Your task to perform on an android device: open app "Nova Launcher" (install if not already installed), go to login, and select forgot password Image 0: 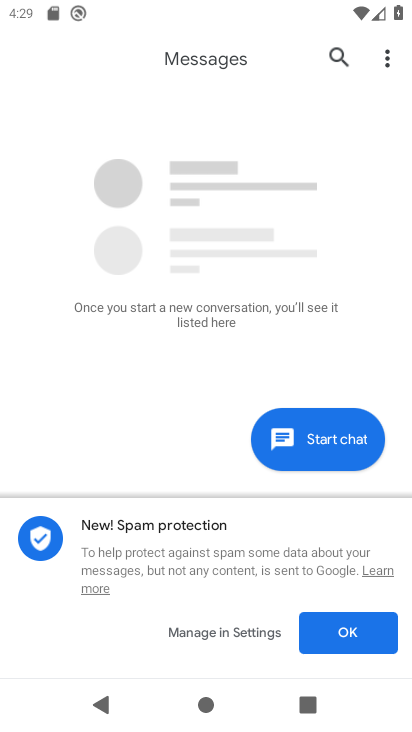
Step 0: press home button
Your task to perform on an android device: open app "Nova Launcher" (install if not already installed), go to login, and select forgot password Image 1: 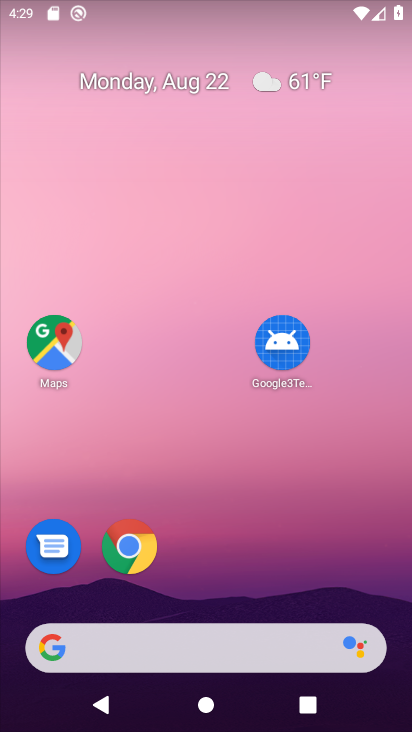
Step 1: drag from (393, 616) to (356, 155)
Your task to perform on an android device: open app "Nova Launcher" (install if not already installed), go to login, and select forgot password Image 2: 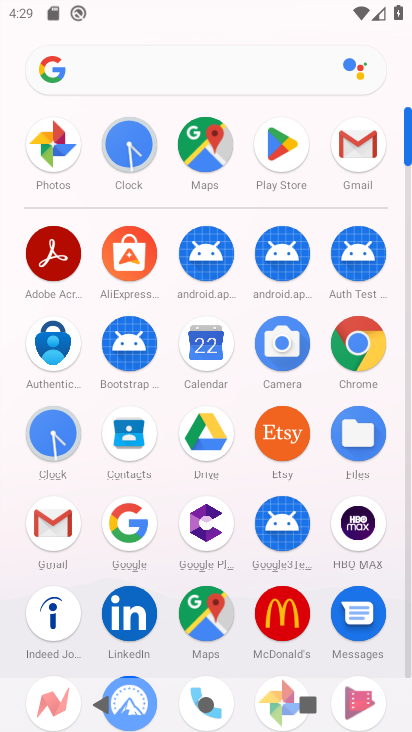
Step 2: click (409, 648)
Your task to perform on an android device: open app "Nova Launcher" (install if not already installed), go to login, and select forgot password Image 3: 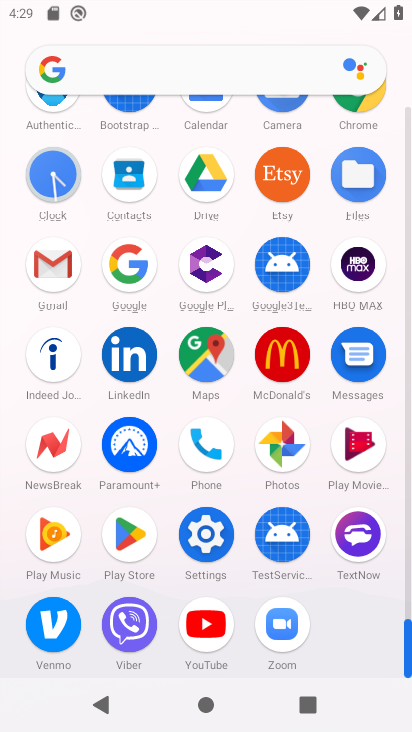
Step 3: click (129, 533)
Your task to perform on an android device: open app "Nova Launcher" (install if not already installed), go to login, and select forgot password Image 4: 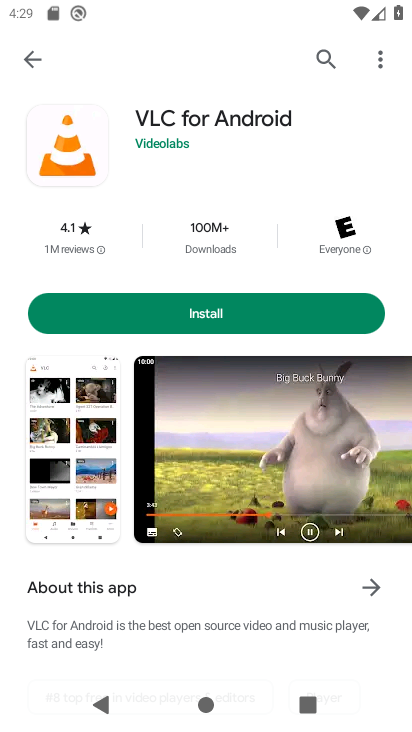
Step 4: click (320, 51)
Your task to perform on an android device: open app "Nova Launcher" (install if not already installed), go to login, and select forgot password Image 5: 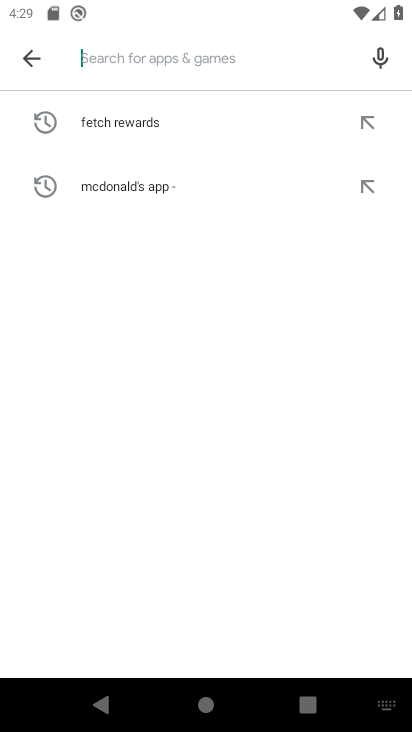
Step 5: type "Nova Launcher"
Your task to perform on an android device: open app "Nova Launcher" (install if not already installed), go to login, and select forgot password Image 6: 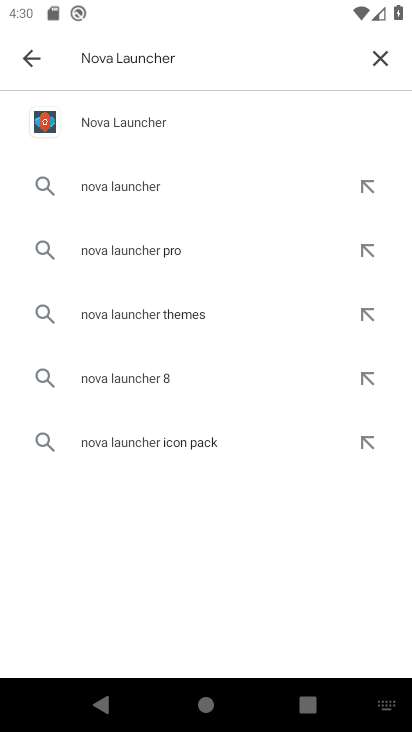
Step 6: click (103, 121)
Your task to perform on an android device: open app "Nova Launcher" (install if not already installed), go to login, and select forgot password Image 7: 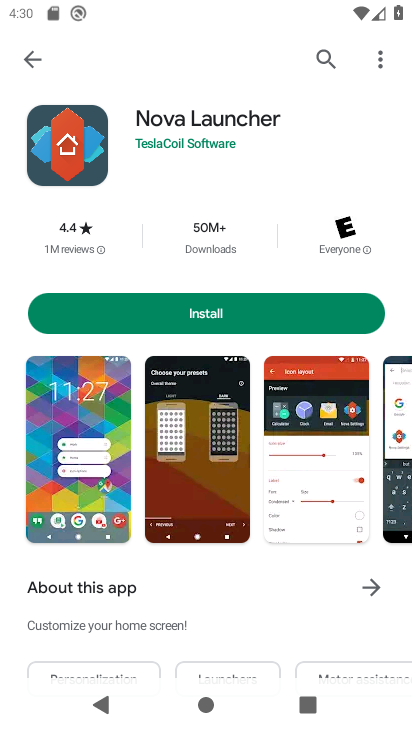
Step 7: click (198, 312)
Your task to perform on an android device: open app "Nova Launcher" (install if not already installed), go to login, and select forgot password Image 8: 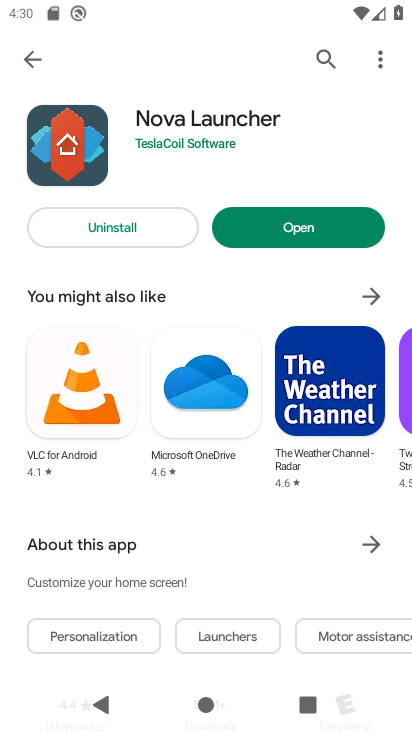
Step 8: click (297, 224)
Your task to perform on an android device: open app "Nova Launcher" (install if not already installed), go to login, and select forgot password Image 9: 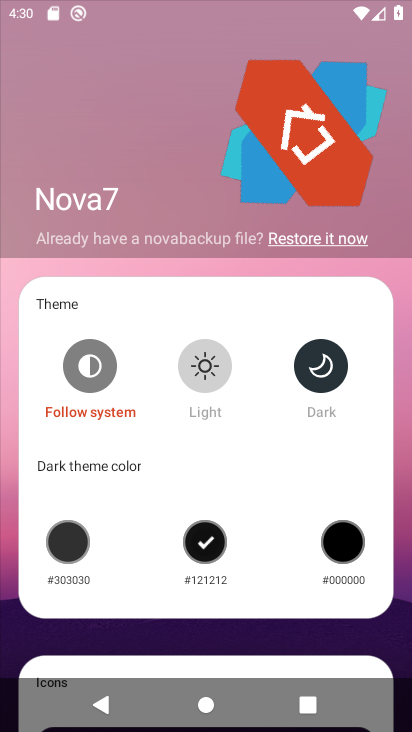
Step 9: task complete